Your task to perform on an android device: add a contact Image 0: 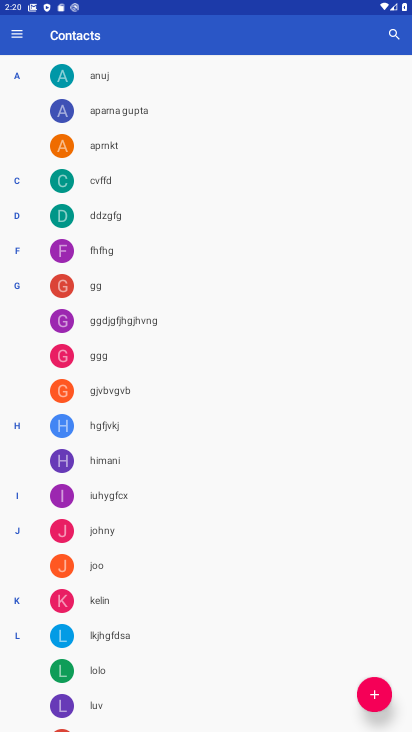
Step 0: click (378, 698)
Your task to perform on an android device: add a contact Image 1: 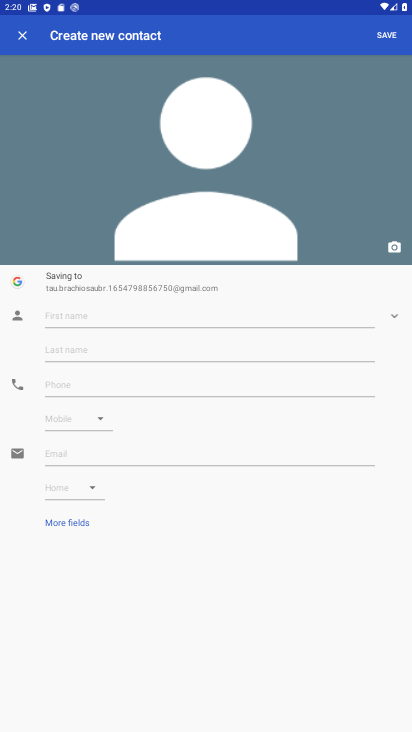
Step 1: click (87, 316)
Your task to perform on an android device: add a contact Image 2: 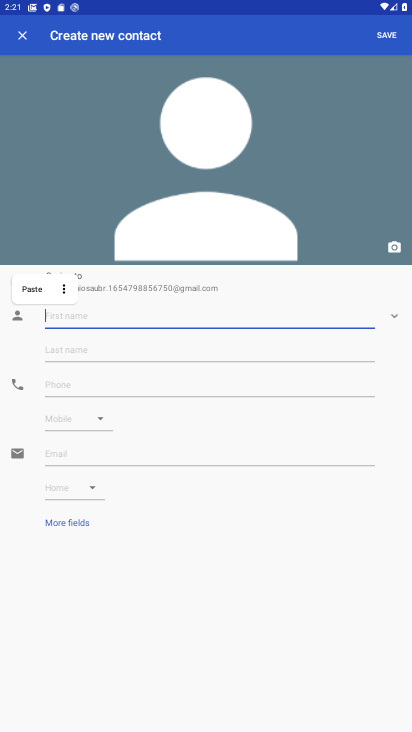
Step 2: type "piku"
Your task to perform on an android device: add a contact Image 3: 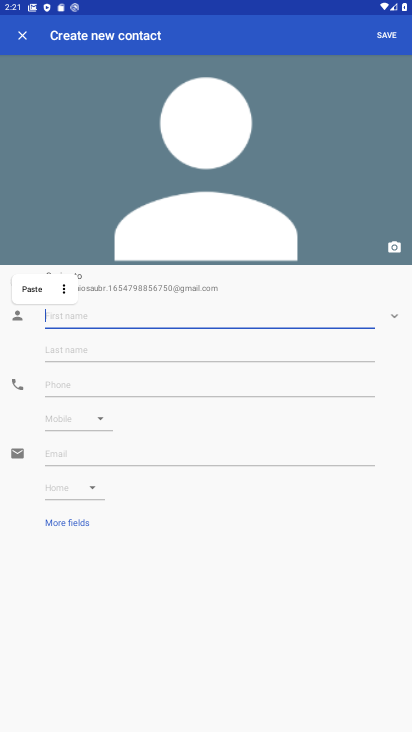
Step 3: click (50, 349)
Your task to perform on an android device: add a contact Image 4: 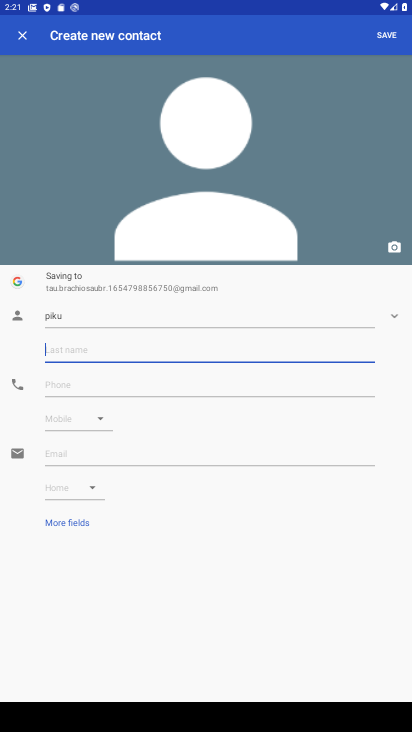
Step 4: type "lupi"
Your task to perform on an android device: add a contact Image 5: 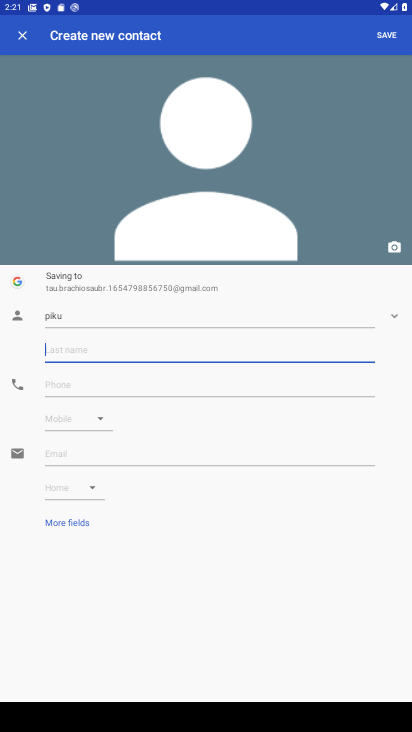
Step 5: click (68, 382)
Your task to perform on an android device: add a contact Image 6: 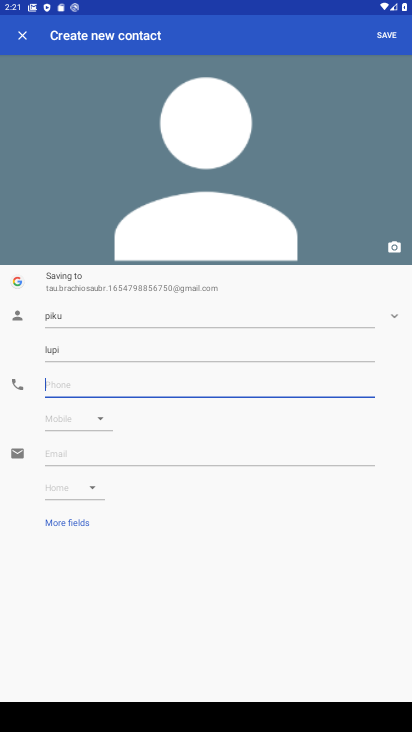
Step 6: type "7898093456"
Your task to perform on an android device: add a contact Image 7: 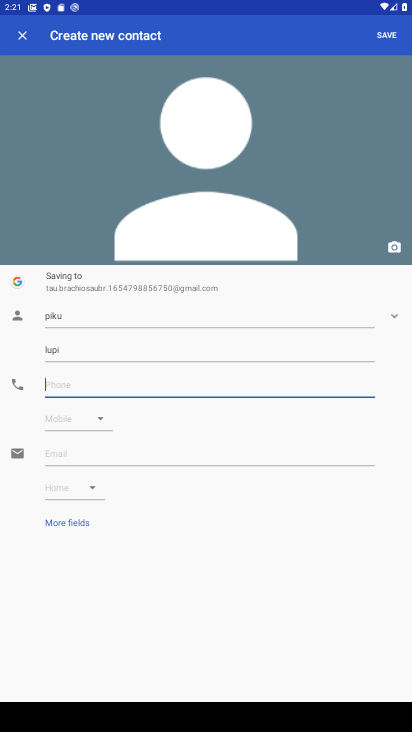
Step 7: click (62, 388)
Your task to perform on an android device: add a contact Image 8: 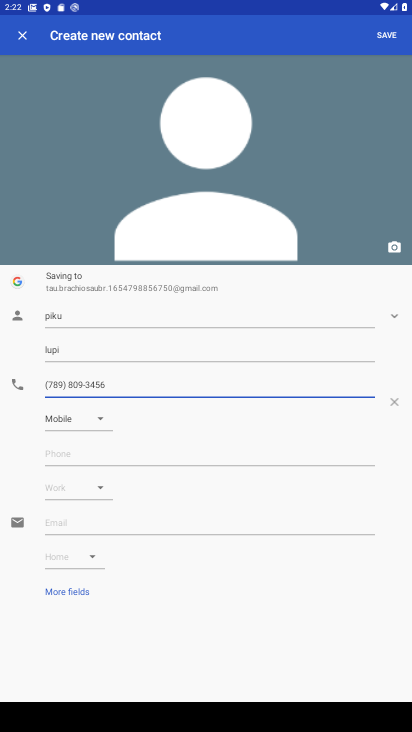
Step 8: click (395, 36)
Your task to perform on an android device: add a contact Image 9: 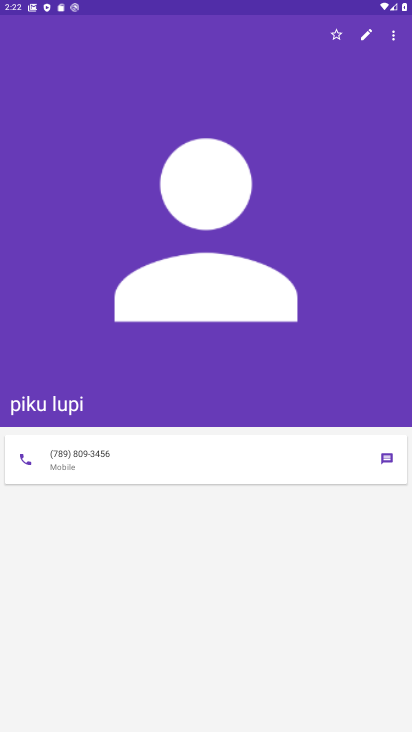
Step 9: task complete